Your task to perform on an android device: Go to eBay Image 0: 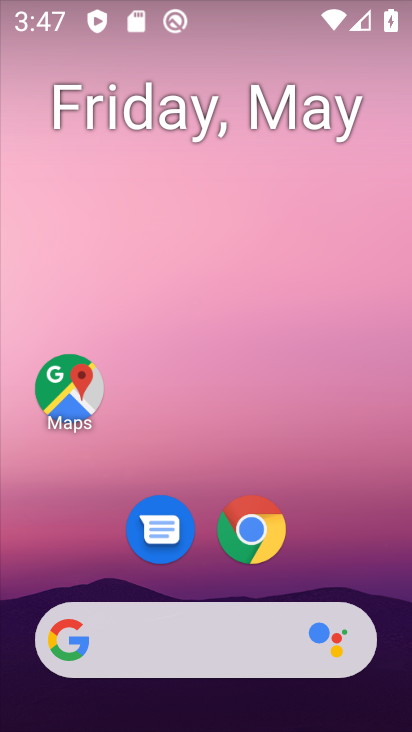
Step 0: click (272, 524)
Your task to perform on an android device: Go to eBay Image 1: 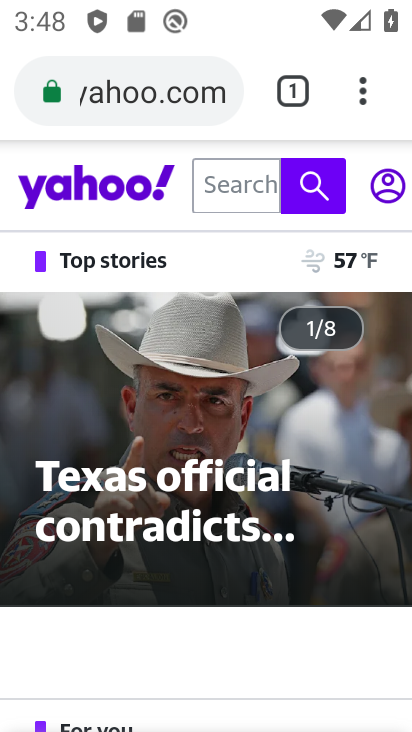
Step 1: press home button
Your task to perform on an android device: Go to eBay Image 2: 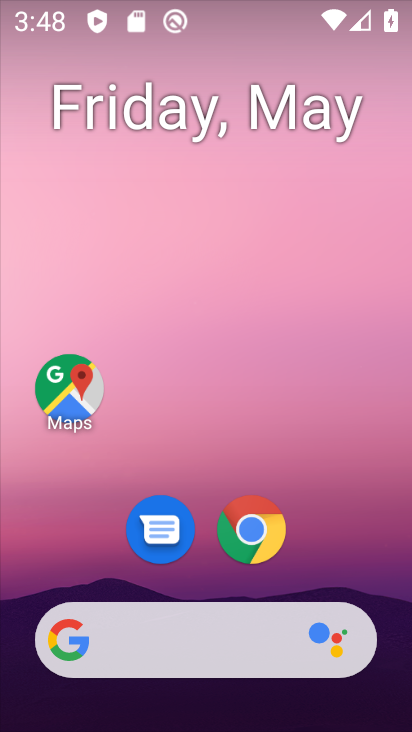
Step 2: click (257, 547)
Your task to perform on an android device: Go to eBay Image 3: 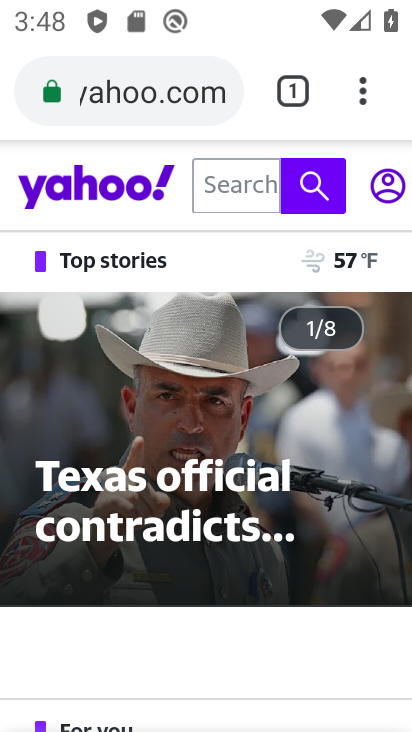
Step 3: click (170, 91)
Your task to perform on an android device: Go to eBay Image 4: 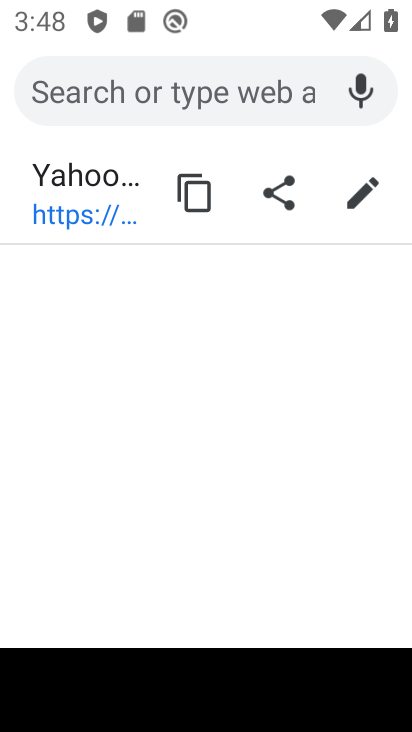
Step 4: type "ebay"
Your task to perform on an android device: Go to eBay Image 5: 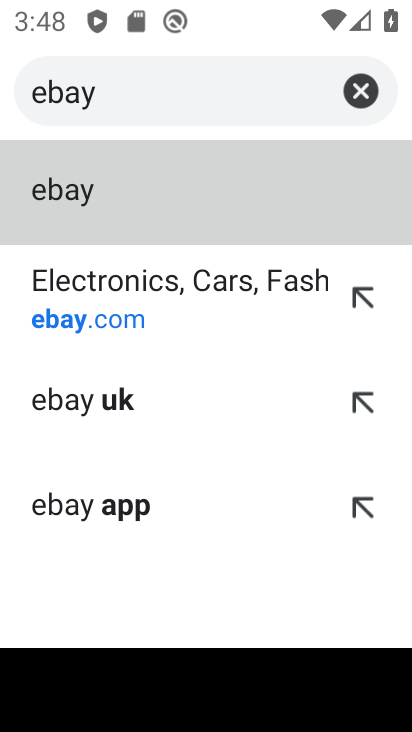
Step 5: click (289, 312)
Your task to perform on an android device: Go to eBay Image 6: 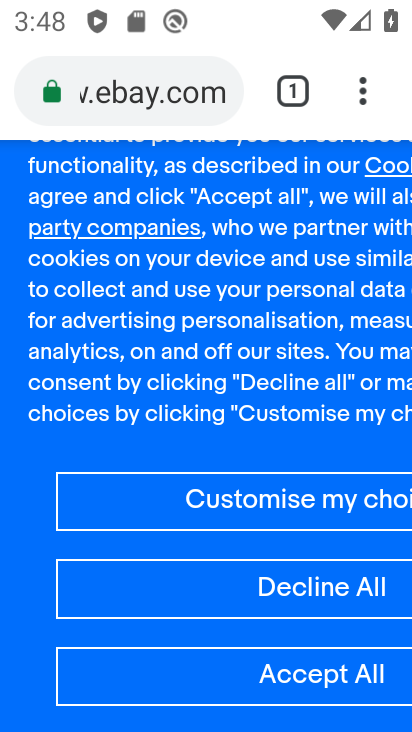
Step 6: task complete